Your task to perform on an android device: toggle improve location accuracy Image 0: 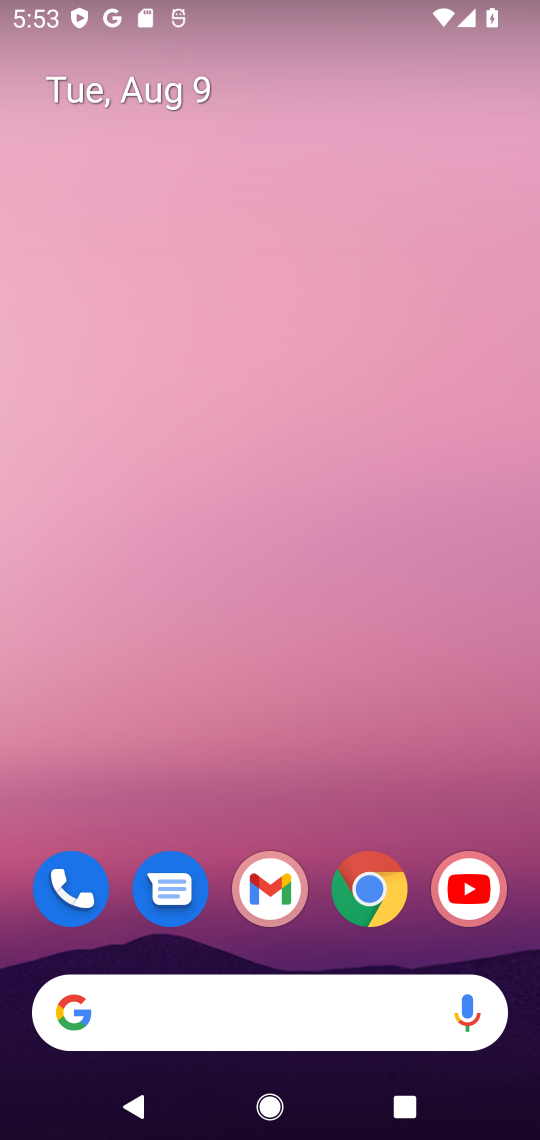
Step 0: drag from (225, 939) to (215, 155)
Your task to perform on an android device: toggle improve location accuracy Image 1: 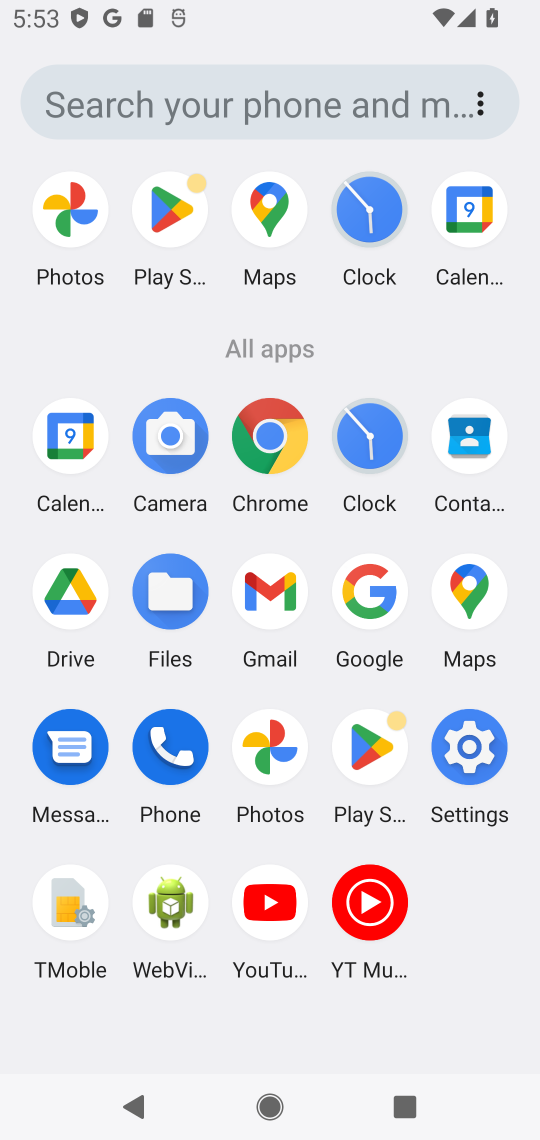
Step 1: click (465, 783)
Your task to perform on an android device: toggle improve location accuracy Image 2: 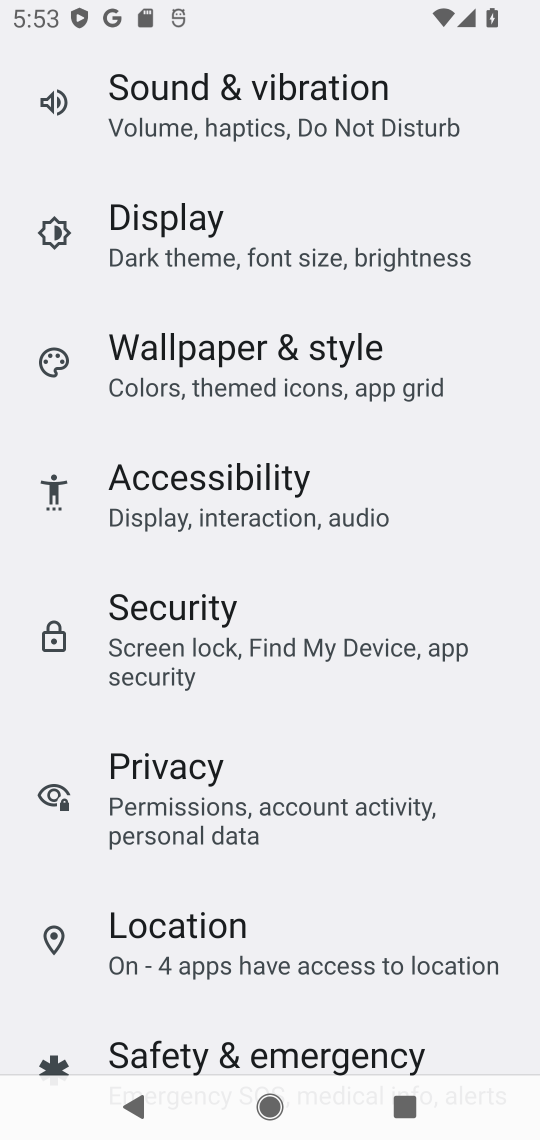
Step 2: click (284, 937)
Your task to perform on an android device: toggle improve location accuracy Image 3: 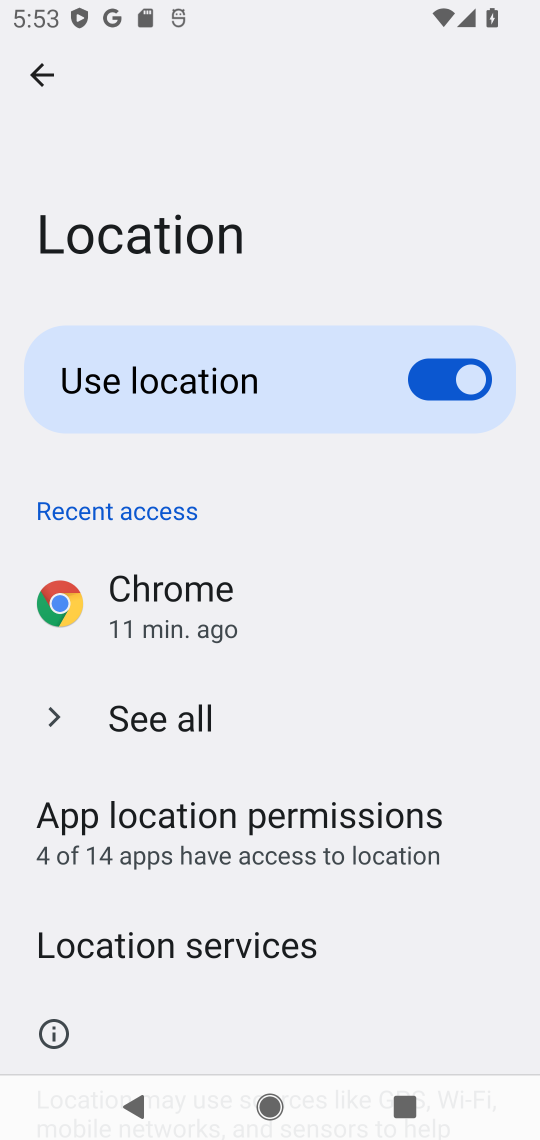
Step 3: click (287, 925)
Your task to perform on an android device: toggle improve location accuracy Image 4: 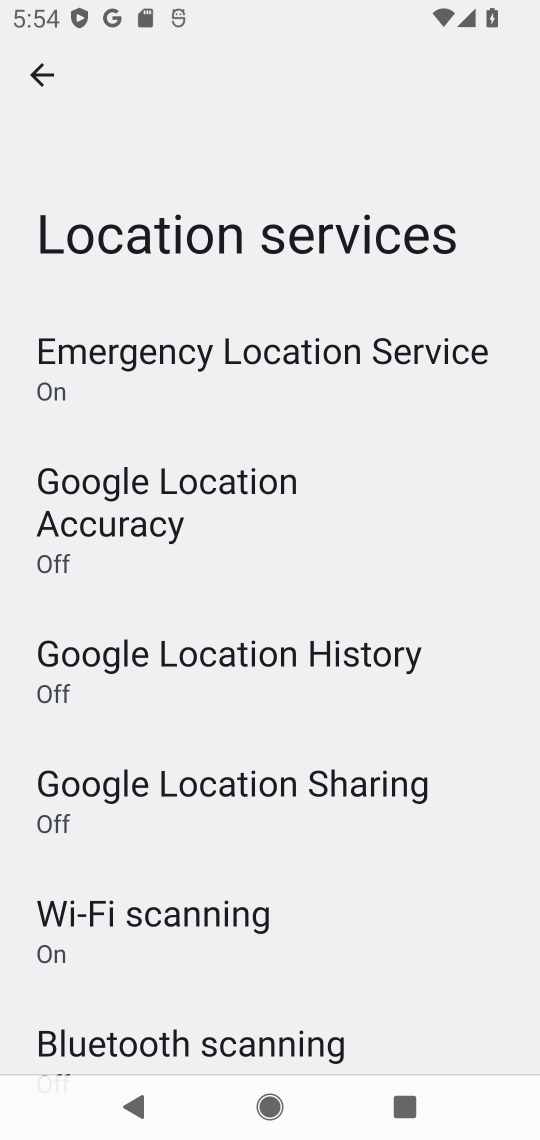
Step 4: click (251, 531)
Your task to perform on an android device: toggle improve location accuracy Image 5: 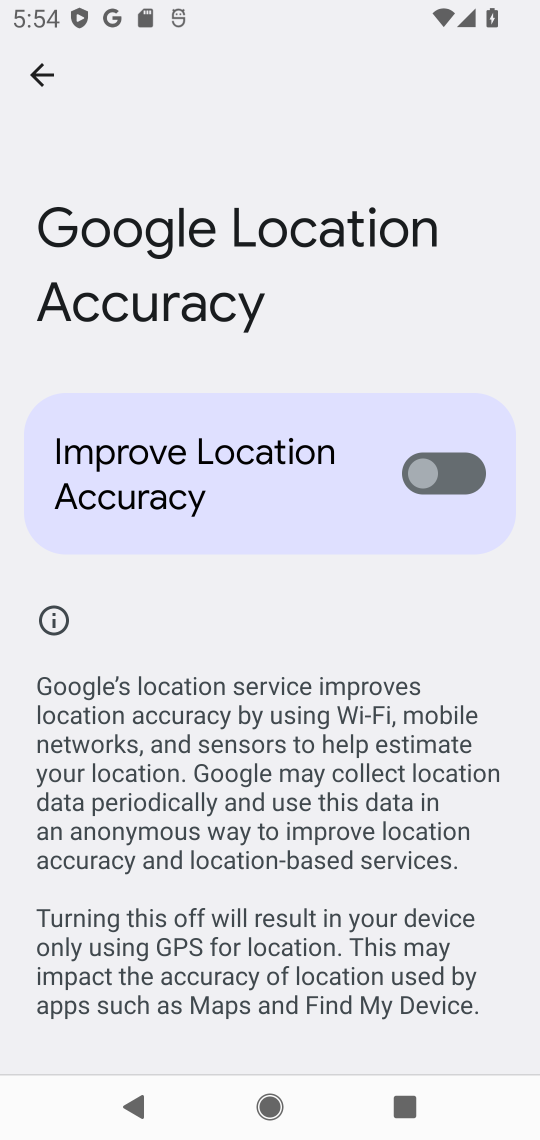
Step 5: click (446, 490)
Your task to perform on an android device: toggle improve location accuracy Image 6: 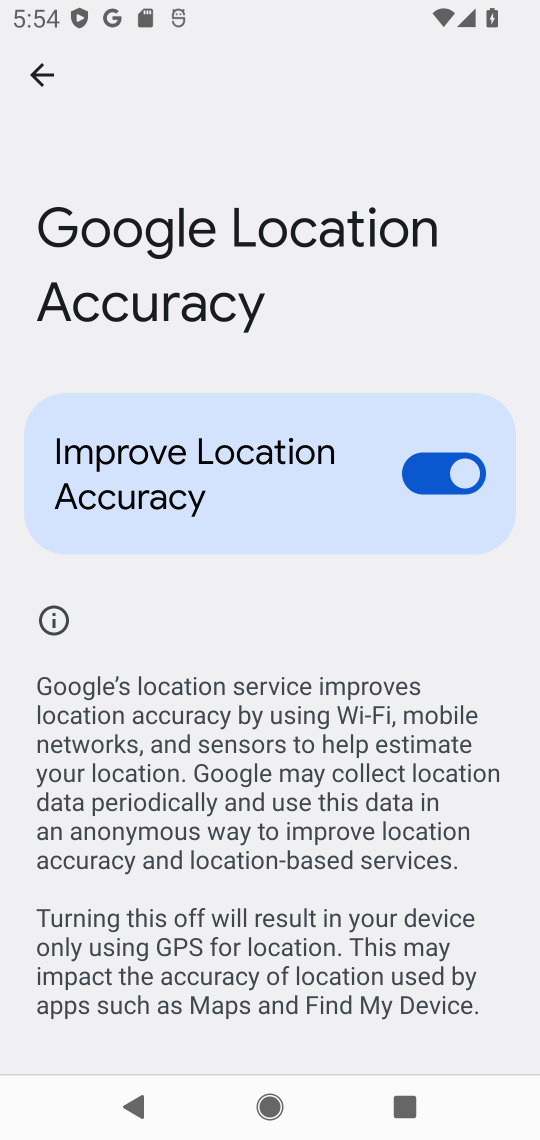
Step 6: task complete